Your task to perform on an android device: See recent photos Image 0: 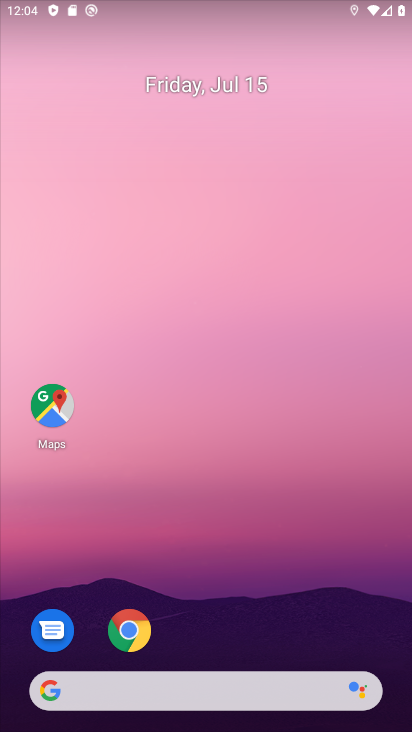
Step 0: drag from (201, 476) to (191, 55)
Your task to perform on an android device: See recent photos Image 1: 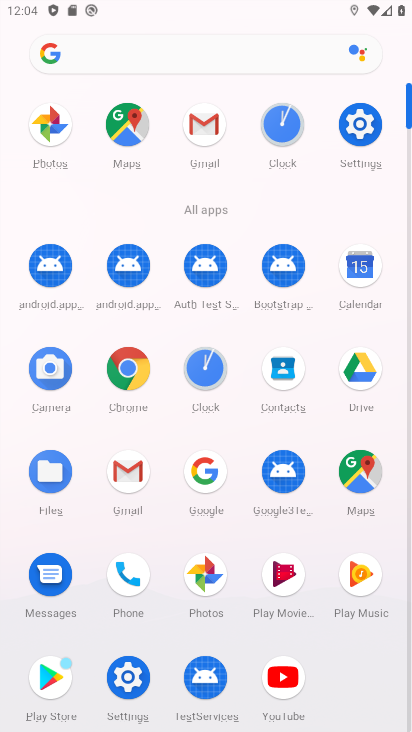
Step 1: click (202, 577)
Your task to perform on an android device: See recent photos Image 2: 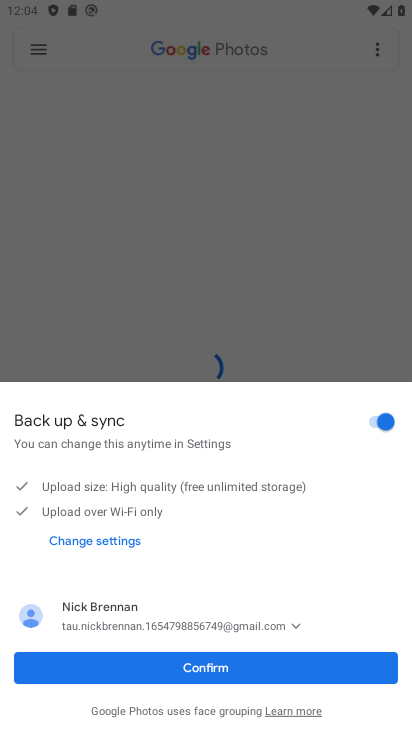
Step 2: click (205, 664)
Your task to perform on an android device: See recent photos Image 3: 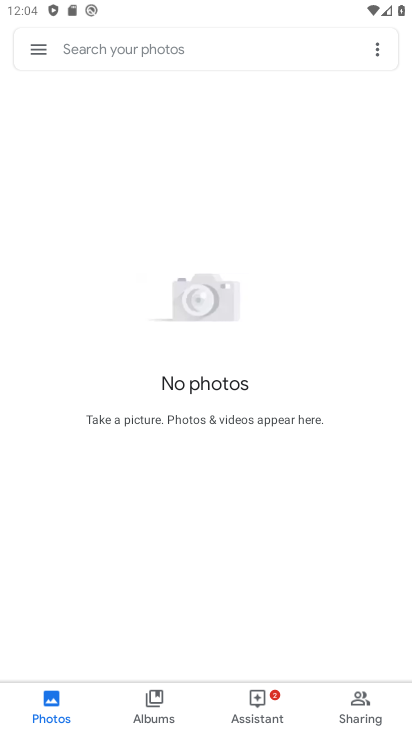
Step 3: click (151, 705)
Your task to perform on an android device: See recent photos Image 4: 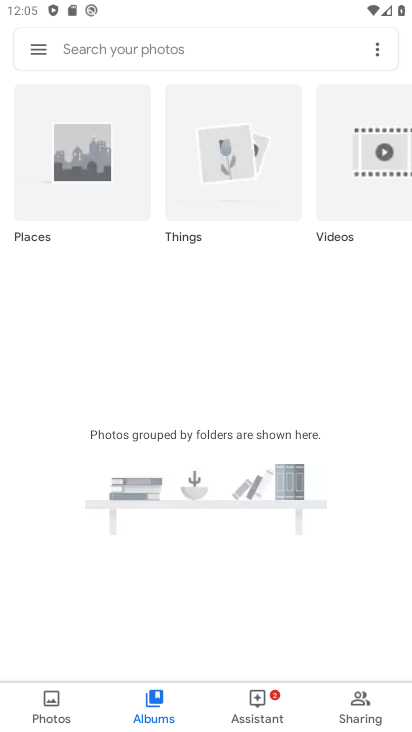
Step 4: task complete